Your task to perform on an android device: check google app version Image 0: 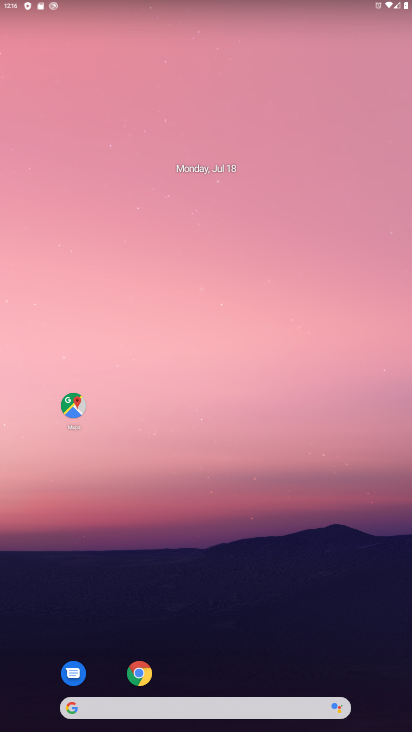
Step 0: drag from (240, 669) to (222, 123)
Your task to perform on an android device: check google app version Image 1: 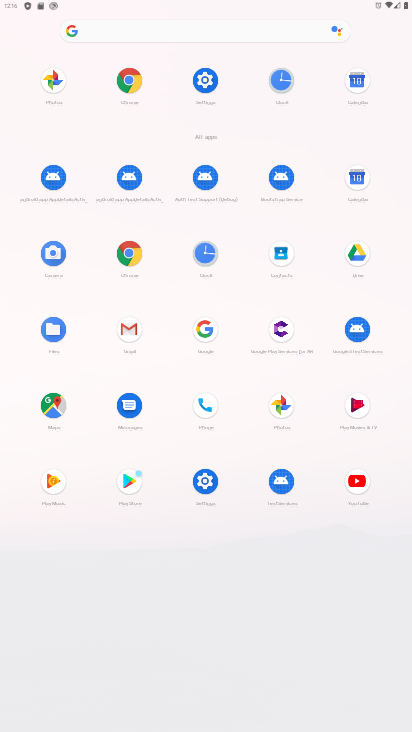
Step 1: click (131, 92)
Your task to perform on an android device: check google app version Image 2: 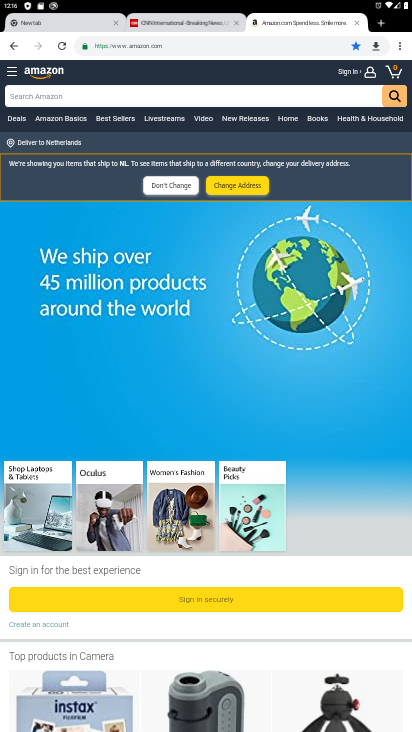
Step 2: click (407, 42)
Your task to perform on an android device: check google app version Image 3: 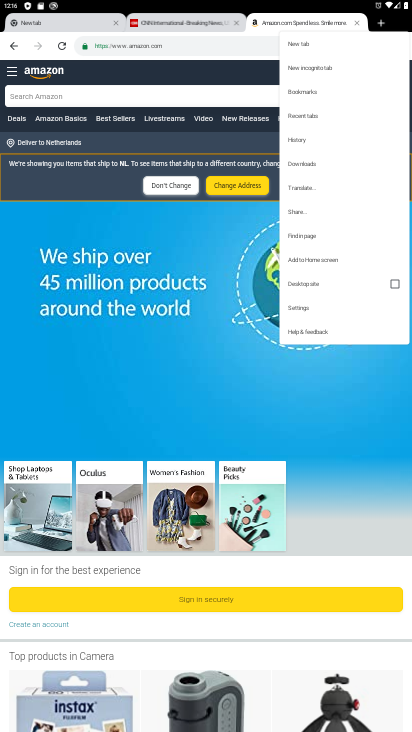
Step 3: click (315, 311)
Your task to perform on an android device: check google app version Image 4: 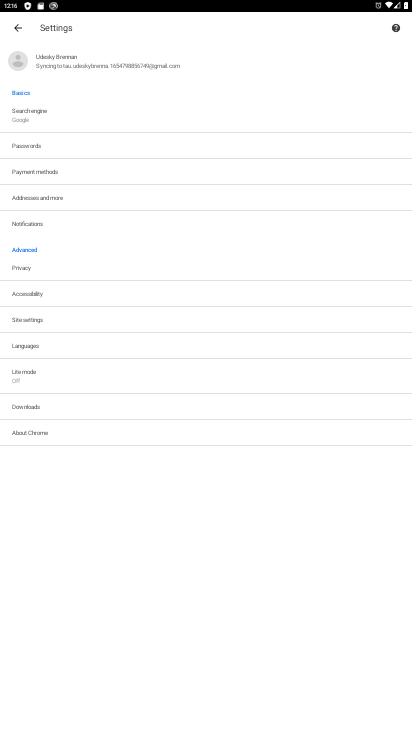
Step 4: task complete